Your task to perform on an android device: Open Chrome and go to the settings page Image 0: 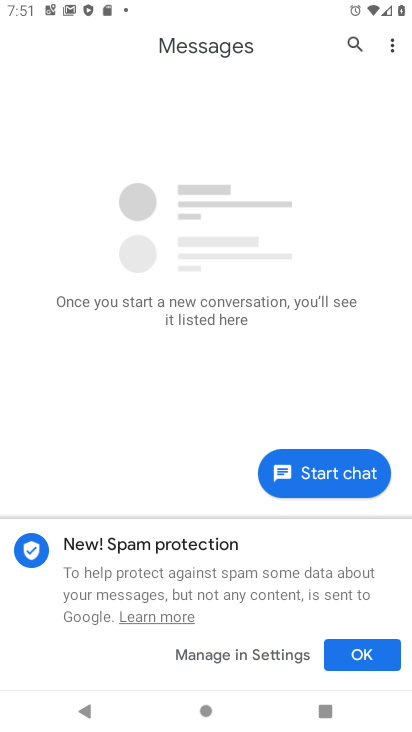
Step 0: press home button
Your task to perform on an android device: Open Chrome and go to the settings page Image 1: 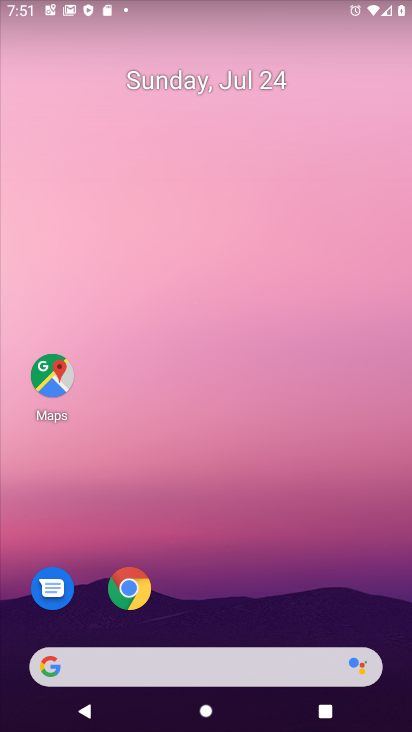
Step 1: drag from (298, 538) to (398, 47)
Your task to perform on an android device: Open Chrome and go to the settings page Image 2: 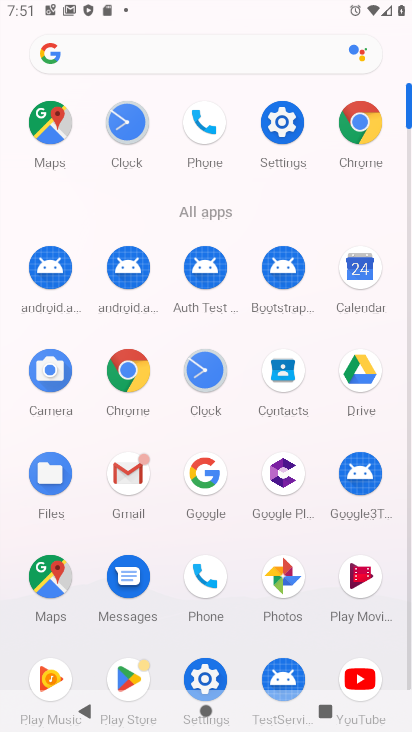
Step 2: click (370, 121)
Your task to perform on an android device: Open Chrome and go to the settings page Image 3: 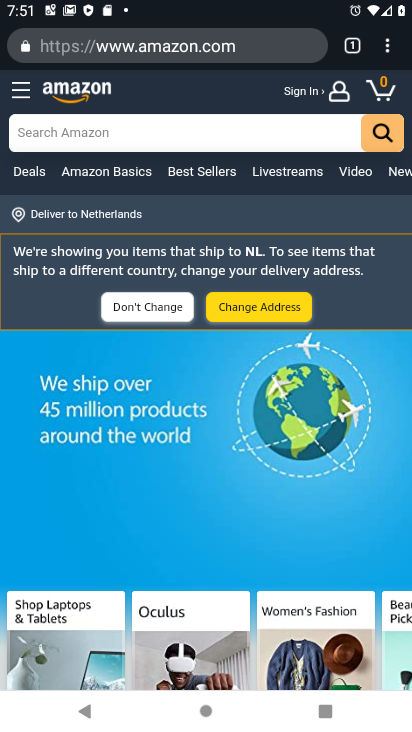
Step 3: task complete